Your task to perform on an android device: Open sound settings Image 0: 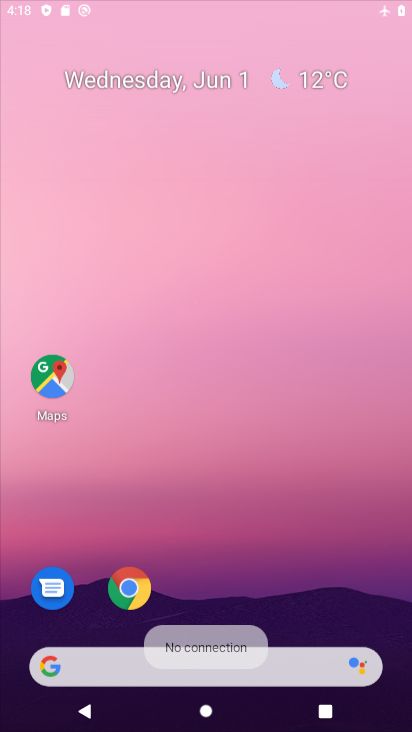
Step 0: drag from (372, 512) to (365, 83)
Your task to perform on an android device: Open sound settings Image 1: 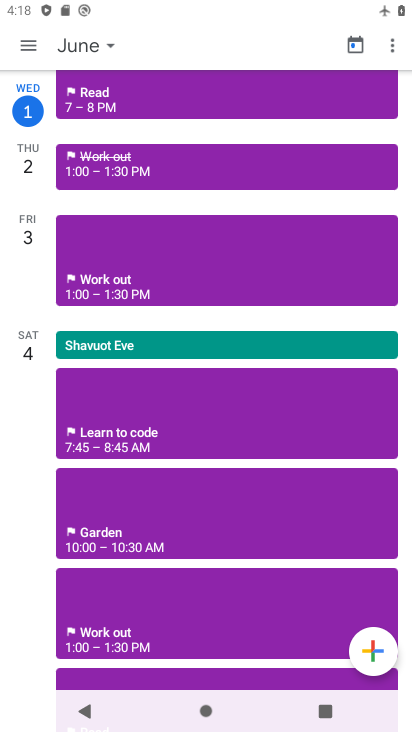
Step 1: press home button
Your task to perform on an android device: Open sound settings Image 2: 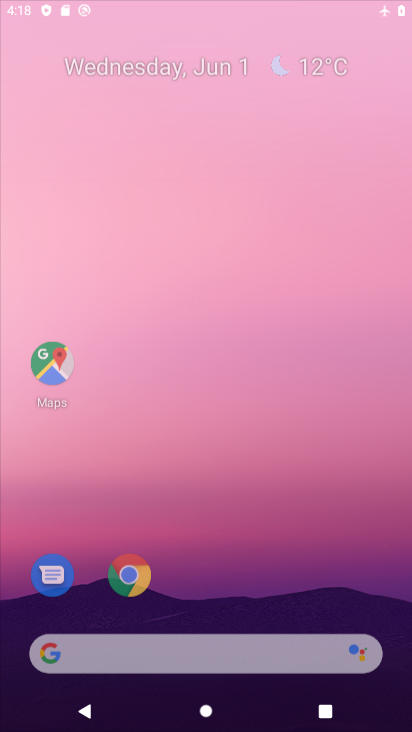
Step 2: press home button
Your task to perform on an android device: Open sound settings Image 3: 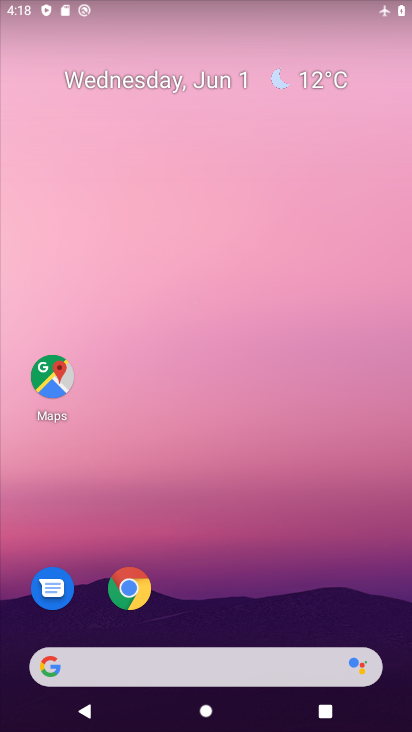
Step 3: drag from (330, 552) to (243, 32)
Your task to perform on an android device: Open sound settings Image 4: 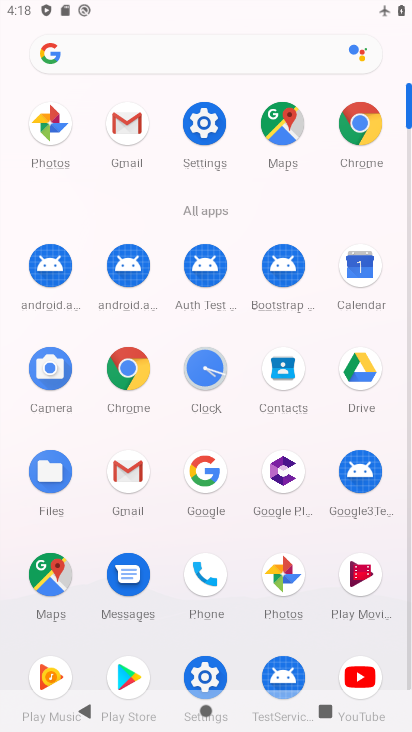
Step 4: click (200, 132)
Your task to perform on an android device: Open sound settings Image 5: 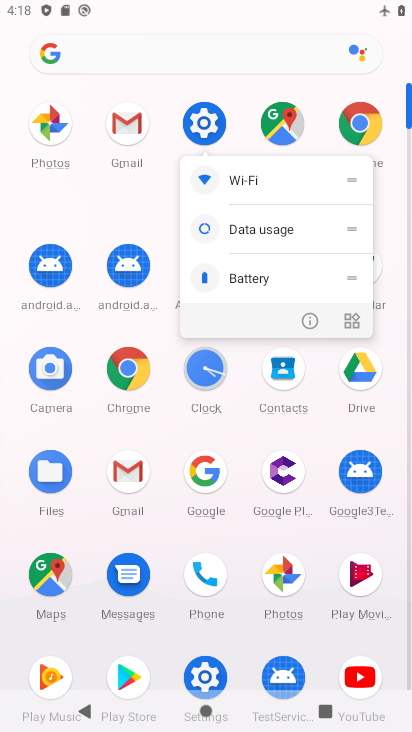
Step 5: click (200, 132)
Your task to perform on an android device: Open sound settings Image 6: 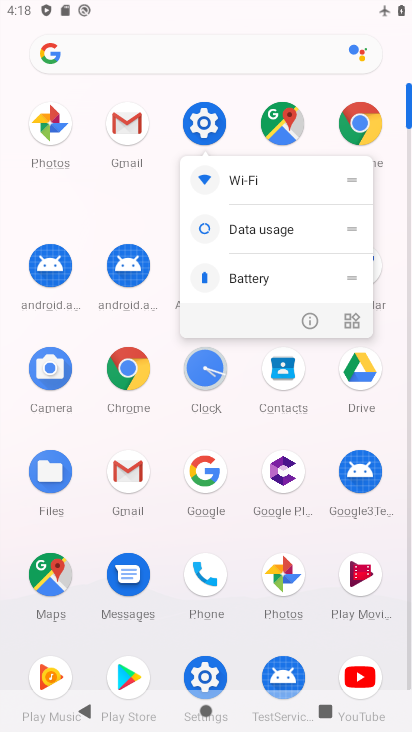
Step 6: click (199, 113)
Your task to perform on an android device: Open sound settings Image 7: 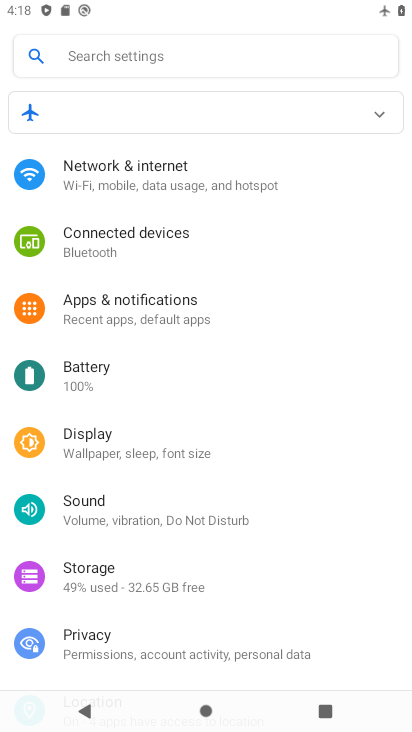
Step 7: click (190, 528)
Your task to perform on an android device: Open sound settings Image 8: 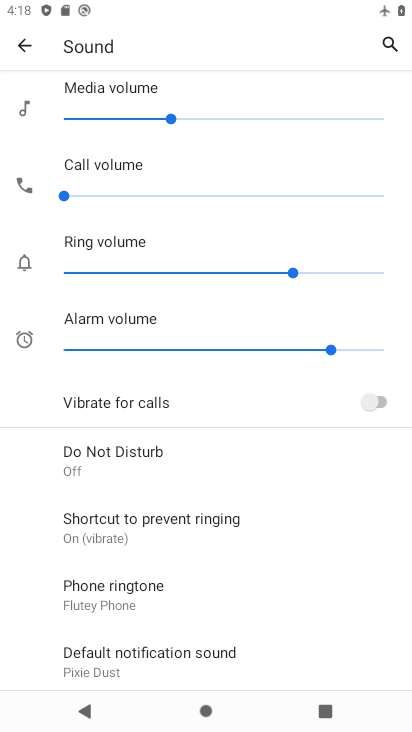
Step 8: task complete